Your task to perform on an android device: show emergency info Image 0: 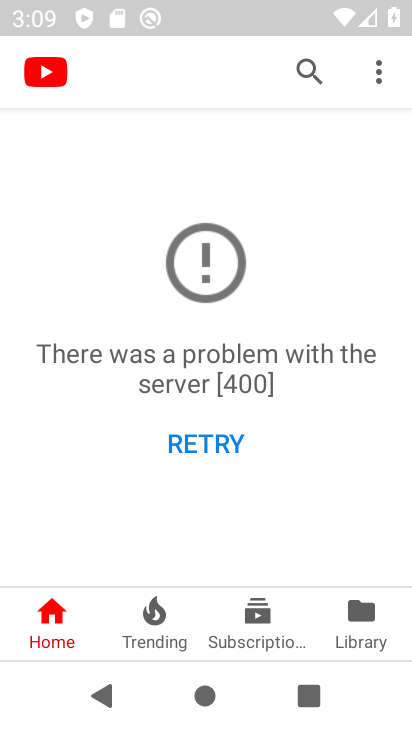
Step 0: press back button
Your task to perform on an android device: show emergency info Image 1: 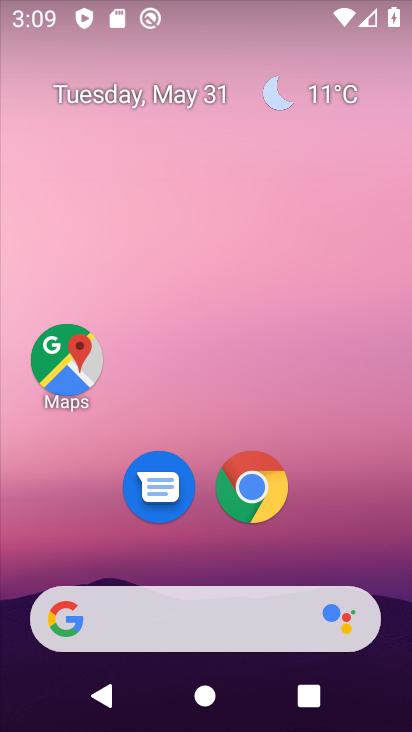
Step 1: drag from (305, 549) to (225, 66)
Your task to perform on an android device: show emergency info Image 2: 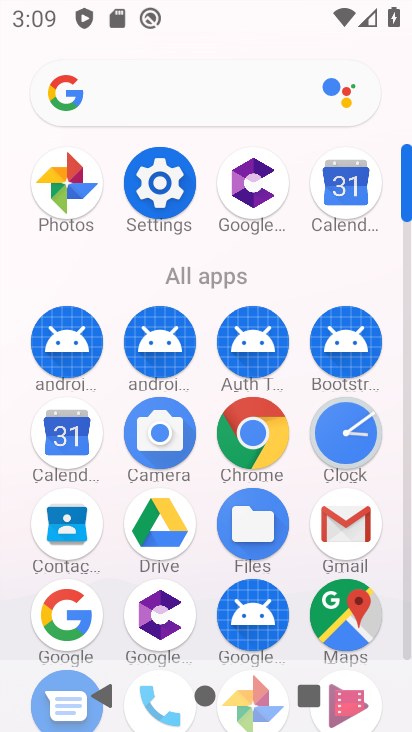
Step 2: click (159, 183)
Your task to perform on an android device: show emergency info Image 3: 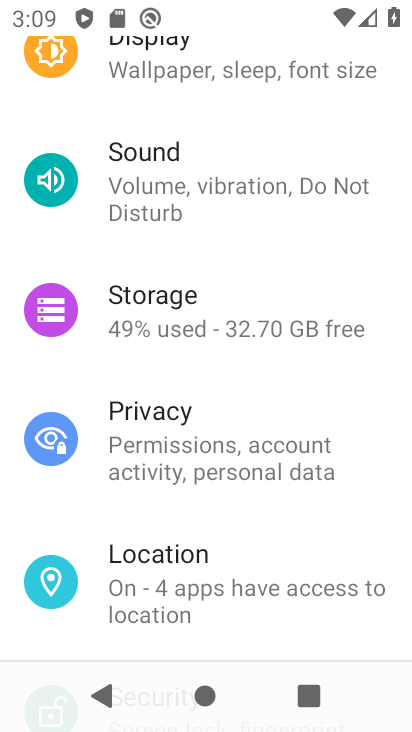
Step 3: drag from (137, 385) to (175, 234)
Your task to perform on an android device: show emergency info Image 4: 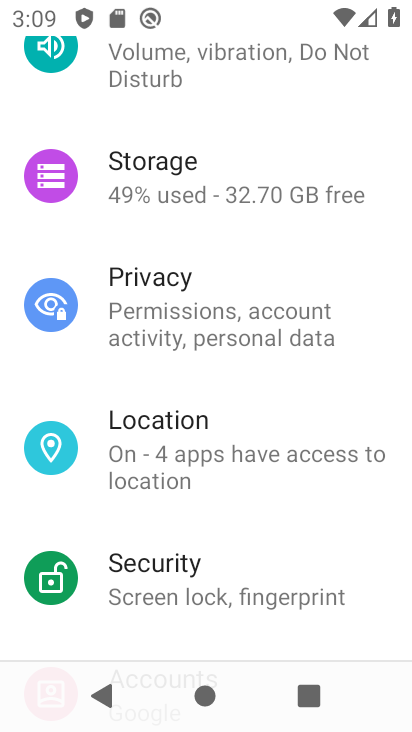
Step 4: drag from (148, 504) to (189, 341)
Your task to perform on an android device: show emergency info Image 5: 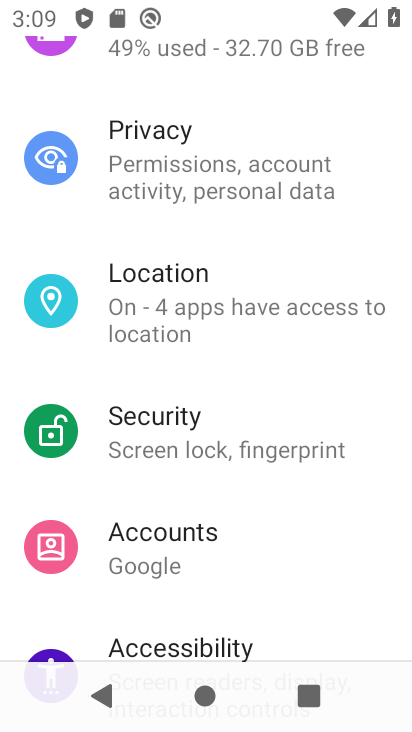
Step 5: drag from (133, 389) to (156, 265)
Your task to perform on an android device: show emergency info Image 6: 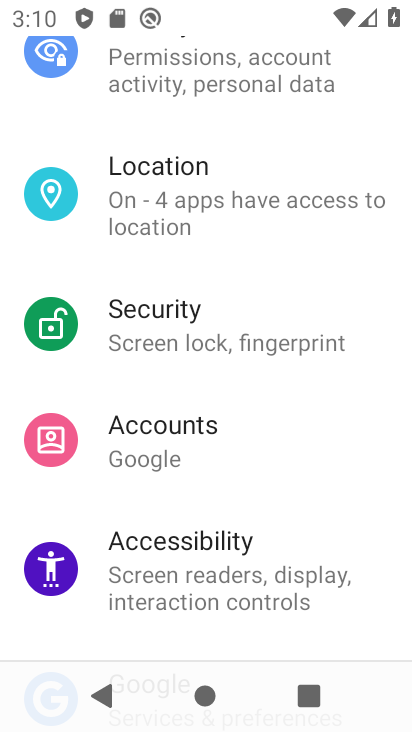
Step 6: drag from (145, 491) to (210, 338)
Your task to perform on an android device: show emergency info Image 7: 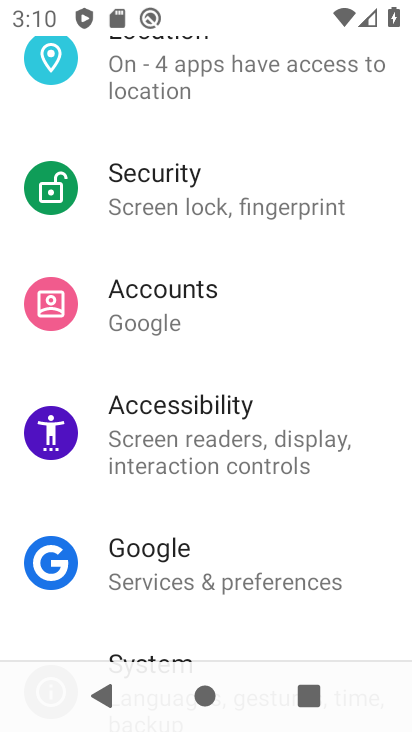
Step 7: drag from (164, 517) to (217, 368)
Your task to perform on an android device: show emergency info Image 8: 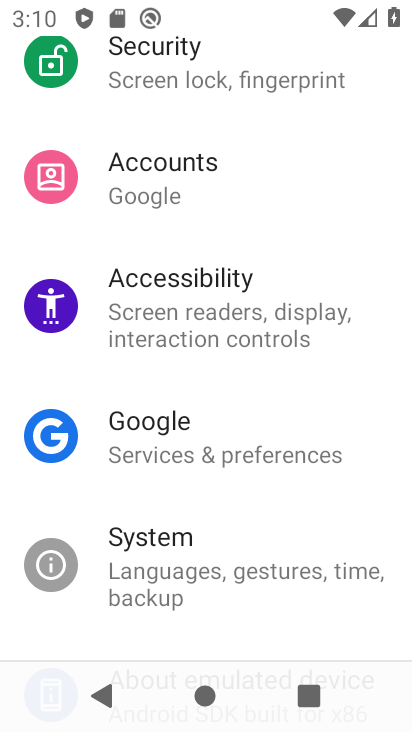
Step 8: drag from (168, 505) to (213, 362)
Your task to perform on an android device: show emergency info Image 9: 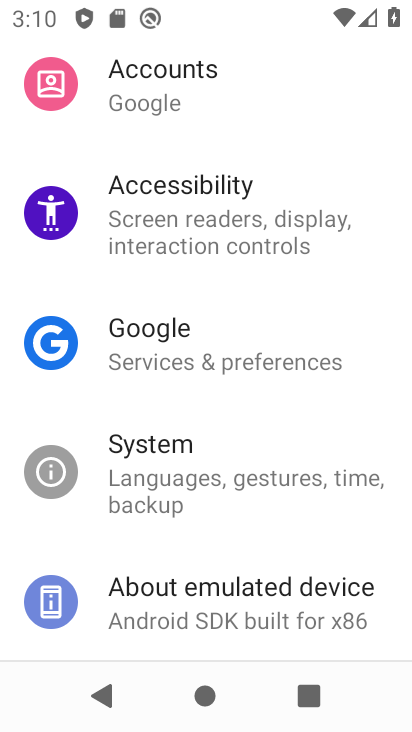
Step 9: click (176, 590)
Your task to perform on an android device: show emergency info Image 10: 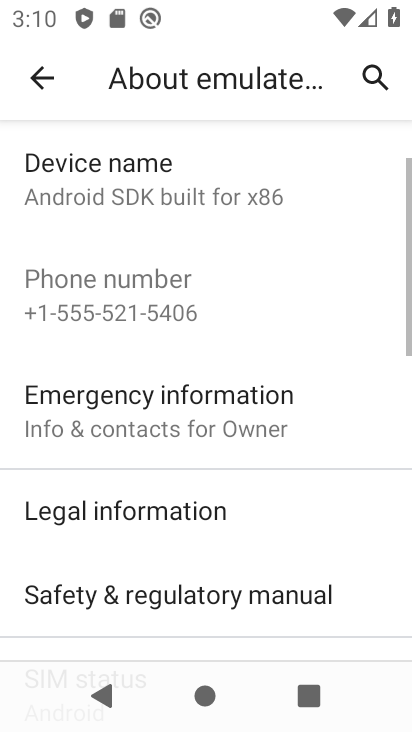
Step 10: click (172, 411)
Your task to perform on an android device: show emergency info Image 11: 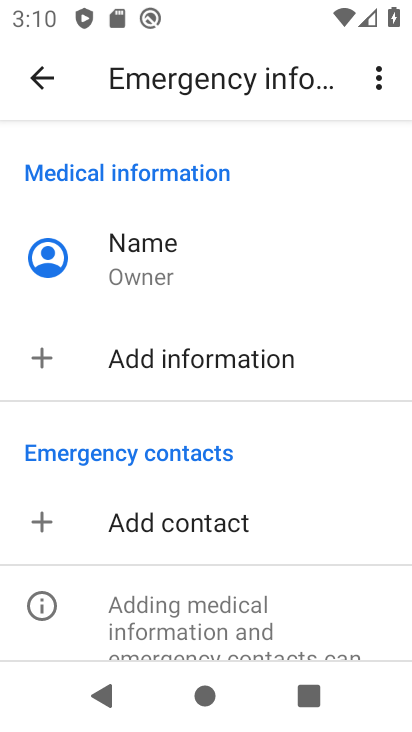
Step 11: task complete